Your task to perform on an android device: Go to ESPN.com Image 0: 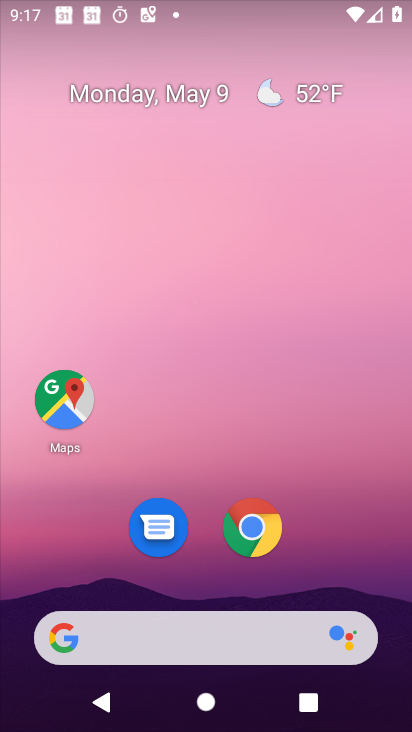
Step 0: drag from (382, 576) to (347, 164)
Your task to perform on an android device: Go to ESPN.com Image 1: 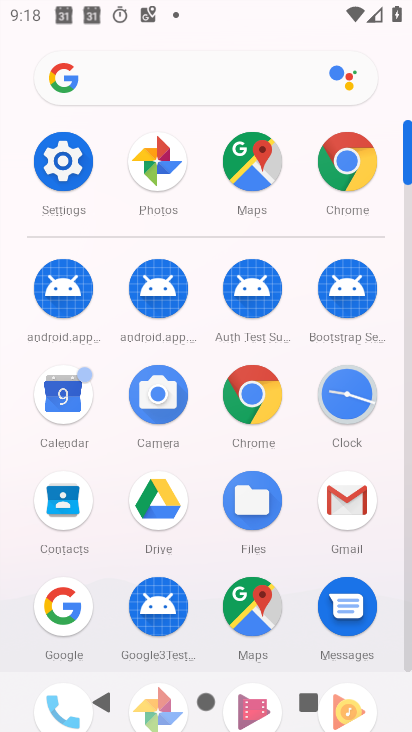
Step 1: click (326, 183)
Your task to perform on an android device: Go to ESPN.com Image 2: 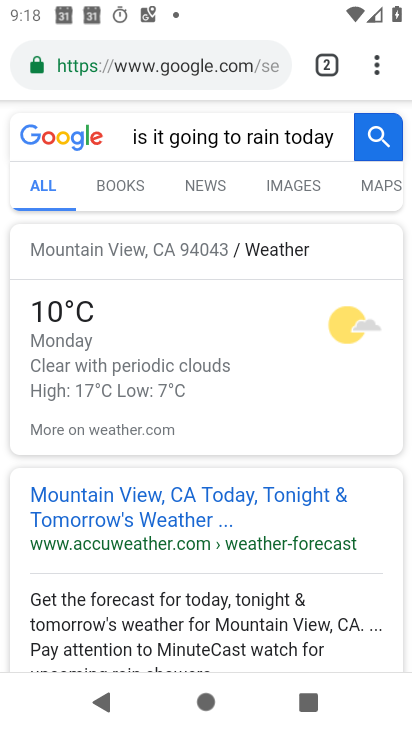
Step 2: click (209, 67)
Your task to perform on an android device: Go to ESPN.com Image 3: 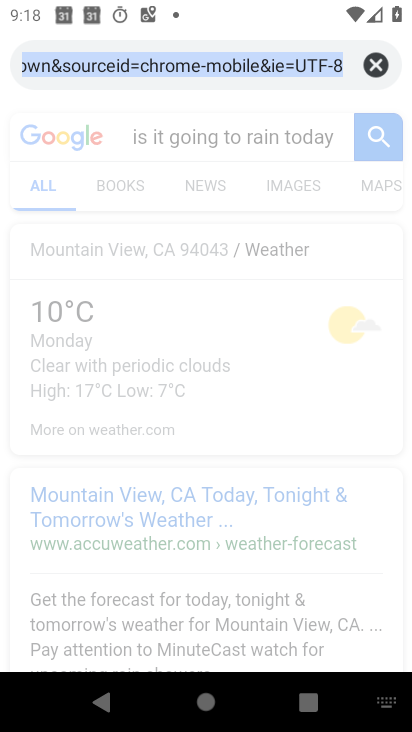
Step 3: click (371, 68)
Your task to perform on an android device: Go to ESPN.com Image 4: 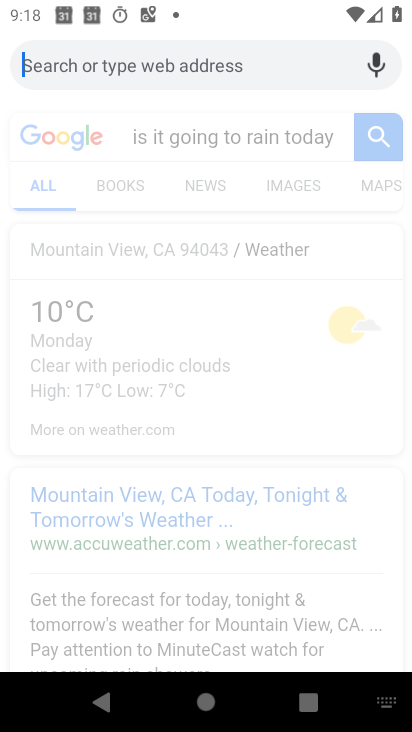
Step 4: type "espn.com"
Your task to perform on an android device: Go to ESPN.com Image 5: 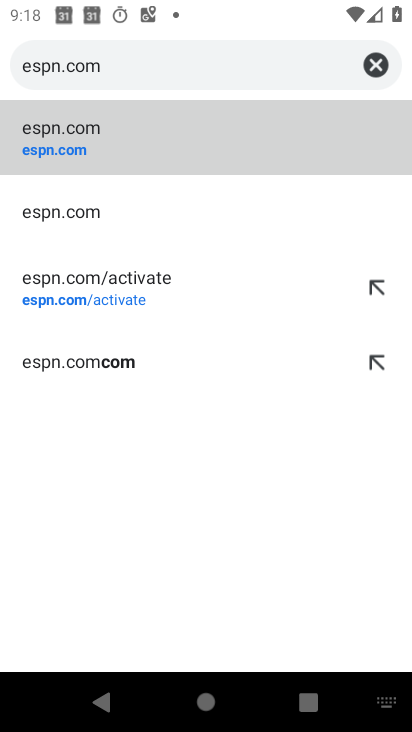
Step 5: click (113, 138)
Your task to perform on an android device: Go to ESPN.com Image 6: 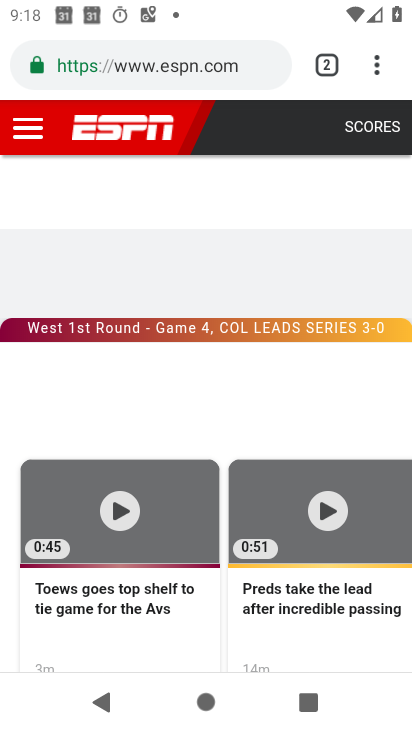
Step 6: task complete